Your task to perform on an android device: change timer sound Image 0: 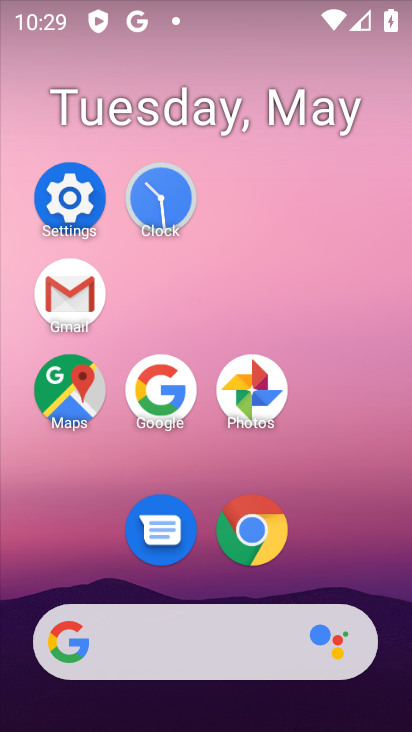
Step 0: click (149, 202)
Your task to perform on an android device: change timer sound Image 1: 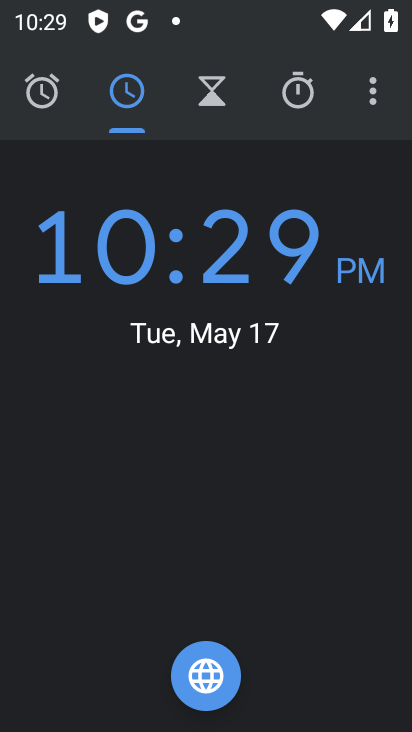
Step 1: click (371, 101)
Your task to perform on an android device: change timer sound Image 2: 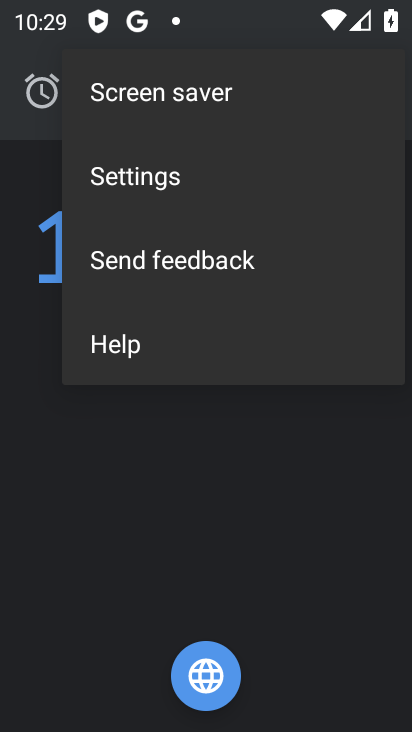
Step 2: click (207, 174)
Your task to perform on an android device: change timer sound Image 3: 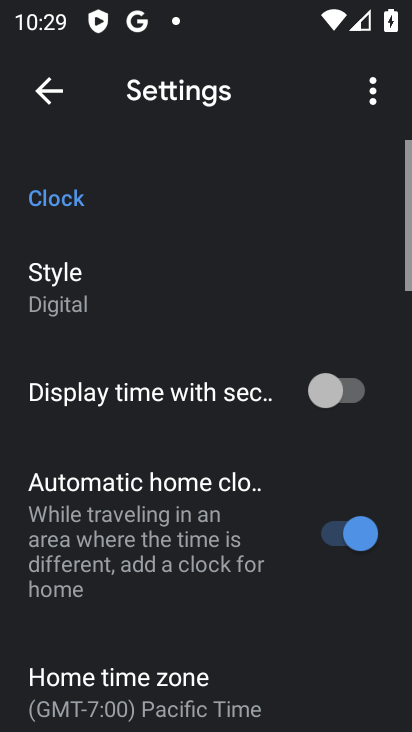
Step 3: drag from (243, 385) to (201, 112)
Your task to perform on an android device: change timer sound Image 4: 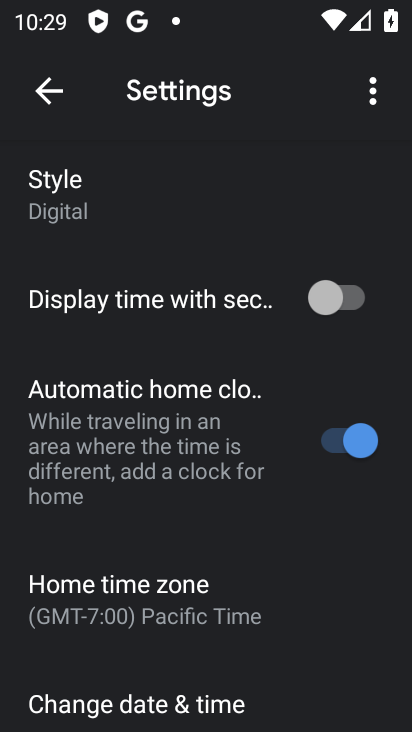
Step 4: drag from (213, 593) to (228, 185)
Your task to perform on an android device: change timer sound Image 5: 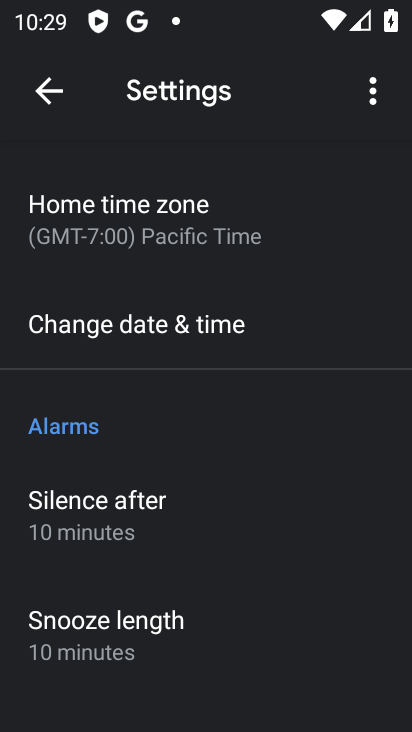
Step 5: drag from (205, 567) to (227, 145)
Your task to perform on an android device: change timer sound Image 6: 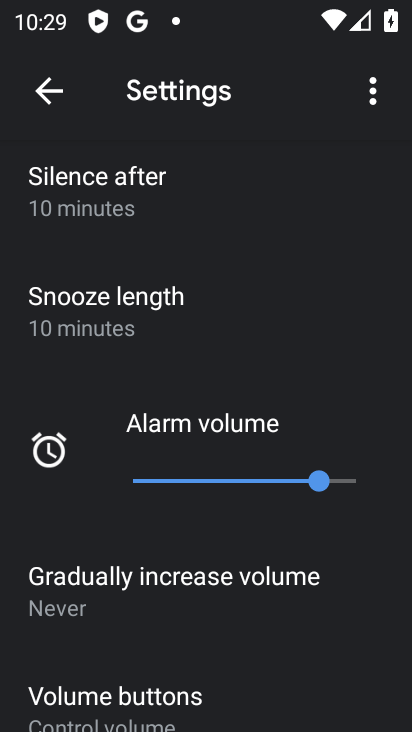
Step 6: drag from (208, 611) to (225, 236)
Your task to perform on an android device: change timer sound Image 7: 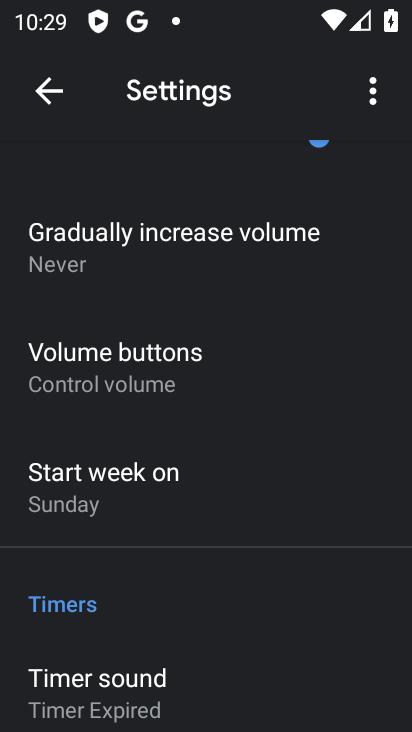
Step 7: drag from (183, 584) to (215, 243)
Your task to perform on an android device: change timer sound Image 8: 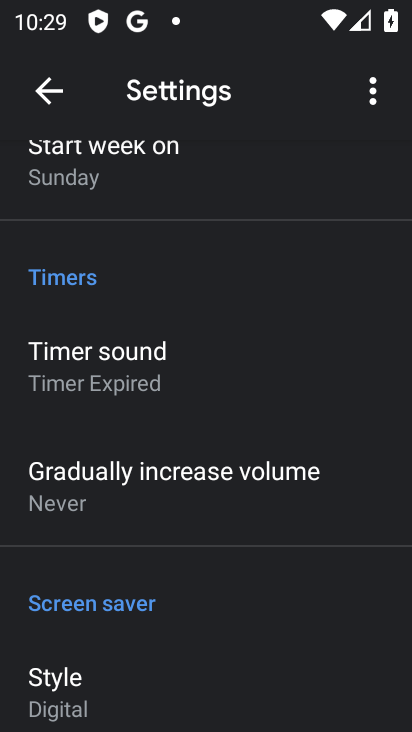
Step 8: click (173, 360)
Your task to perform on an android device: change timer sound Image 9: 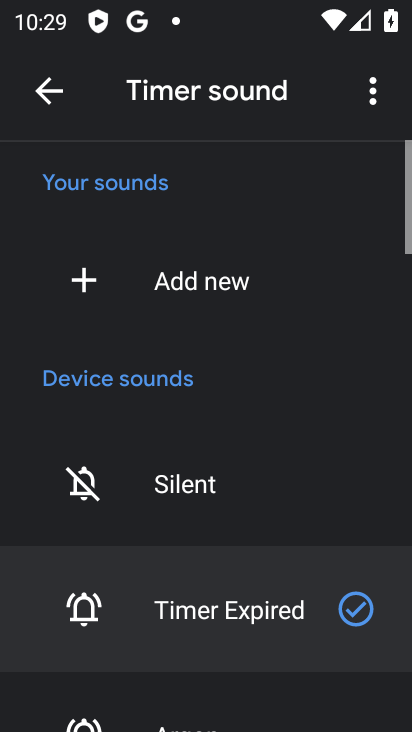
Step 9: click (207, 722)
Your task to perform on an android device: change timer sound Image 10: 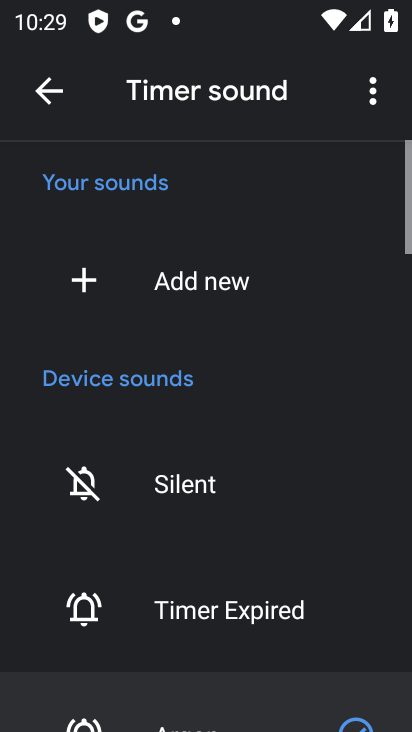
Step 10: task complete